Your task to perform on an android device: change text size in settings app Image 0: 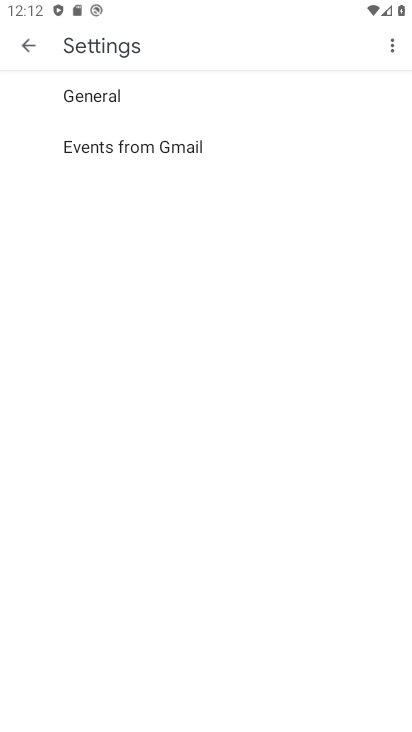
Step 0: press home button
Your task to perform on an android device: change text size in settings app Image 1: 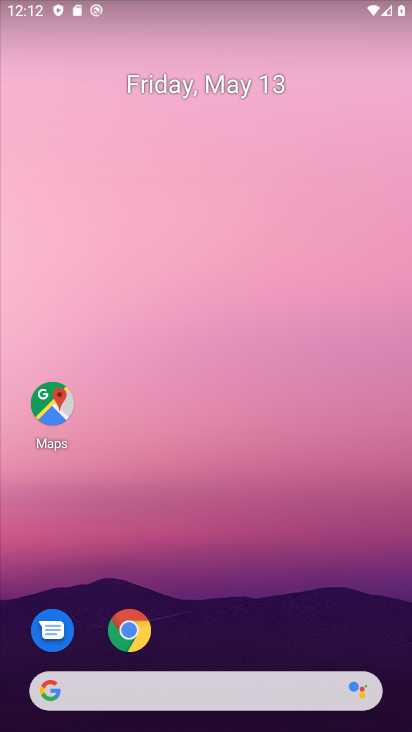
Step 1: drag from (260, 706) to (291, 72)
Your task to perform on an android device: change text size in settings app Image 2: 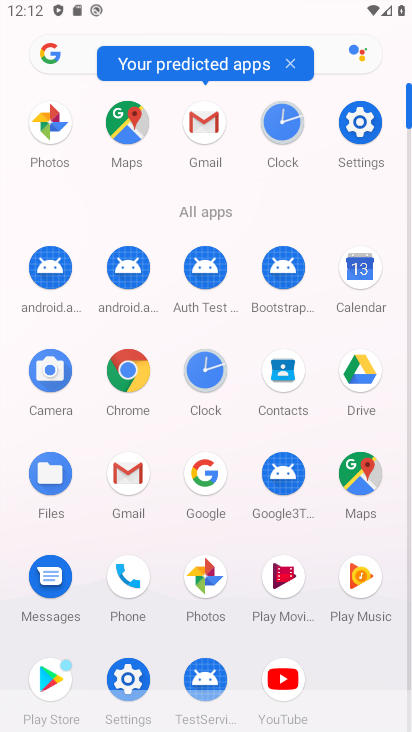
Step 2: click (353, 130)
Your task to perform on an android device: change text size in settings app Image 3: 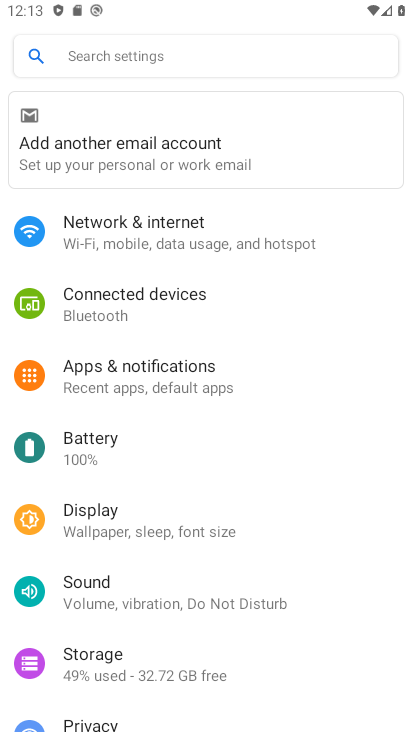
Step 3: click (135, 59)
Your task to perform on an android device: change text size in settings app Image 4: 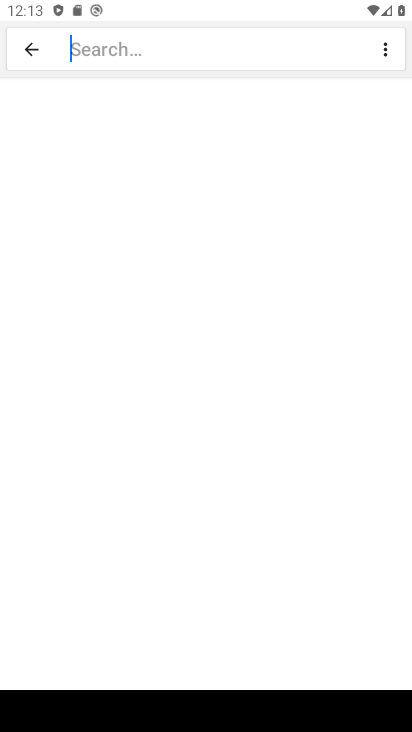
Step 4: click (129, 74)
Your task to perform on an android device: change text size in settings app Image 5: 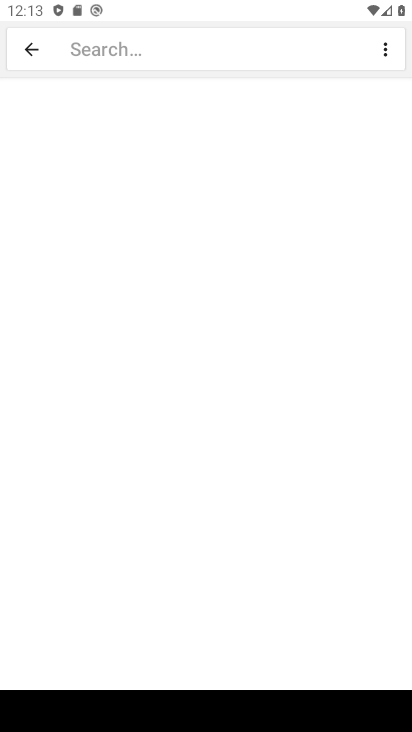
Step 5: drag from (376, 710) to (356, 555)
Your task to perform on an android device: change text size in settings app Image 6: 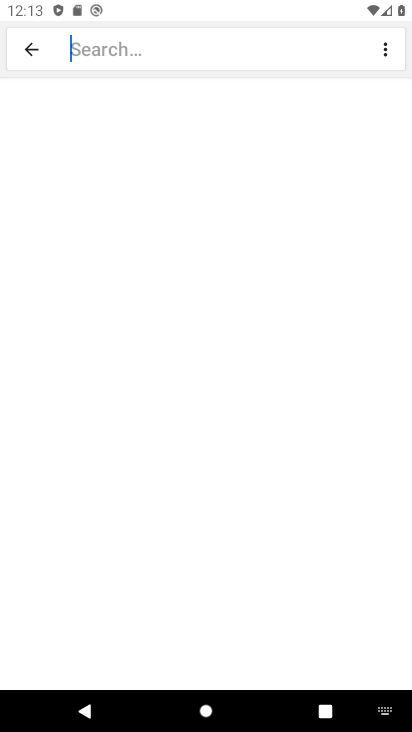
Step 6: click (385, 706)
Your task to perform on an android device: change text size in settings app Image 7: 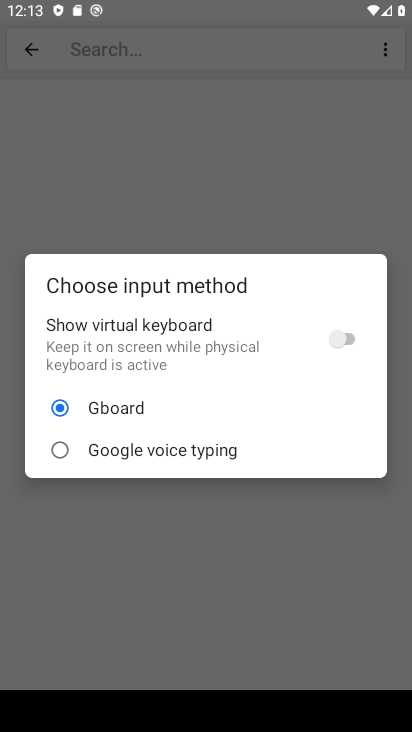
Step 7: click (342, 341)
Your task to perform on an android device: change text size in settings app Image 8: 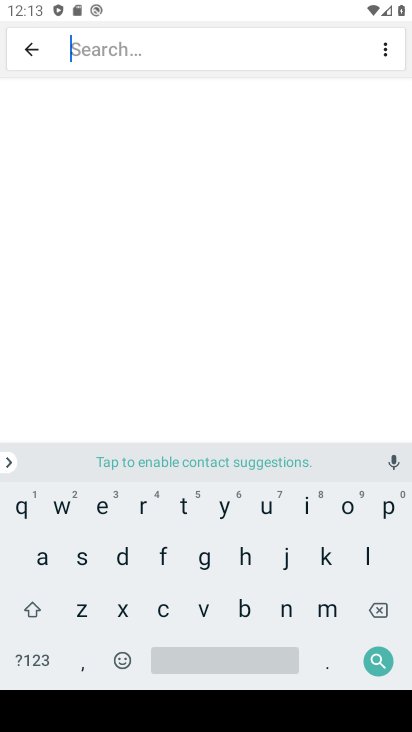
Step 8: click (82, 562)
Your task to perform on an android device: change text size in settings app Image 9: 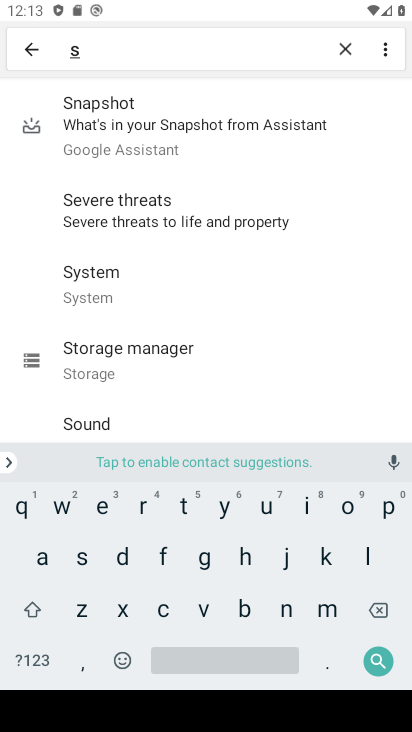
Step 9: click (301, 511)
Your task to perform on an android device: change text size in settings app Image 10: 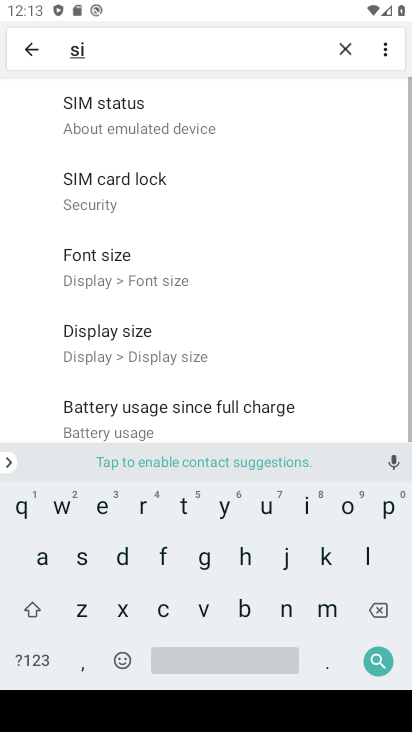
Step 10: click (79, 609)
Your task to perform on an android device: change text size in settings app Image 11: 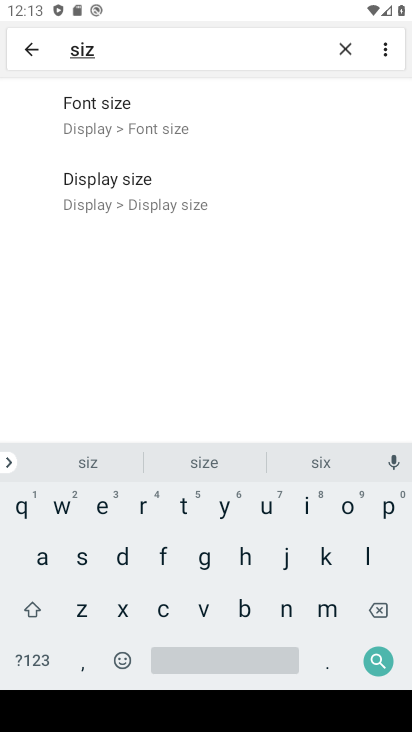
Step 11: click (157, 138)
Your task to perform on an android device: change text size in settings app Image 12: 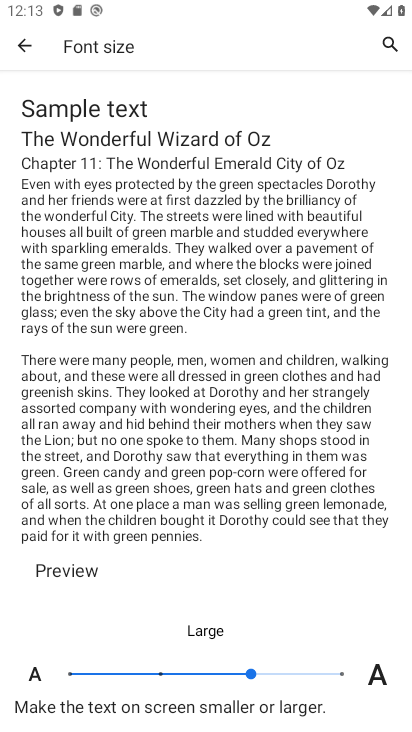
Step 12: click (315, 665)
Your task to perform on an android device: change text size in settings app Image 13: 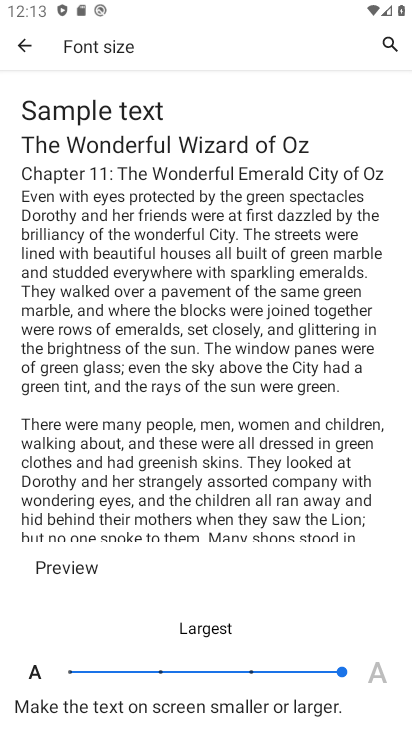
Step 13: task complete